Your task to perform on an android device: add a label to a message in the gmail app Image 0: 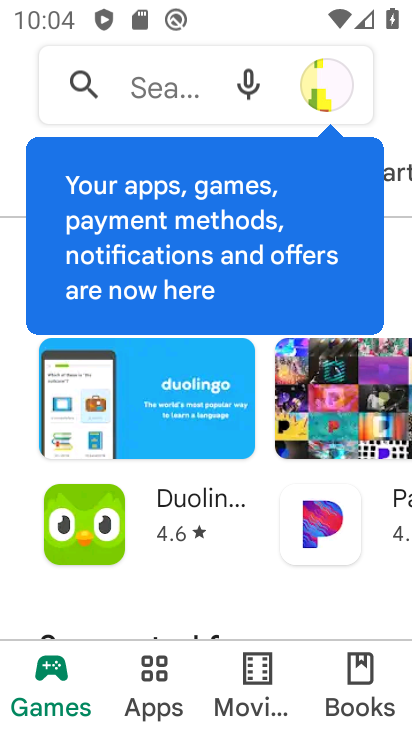
Step 0: press home button
Your task to perform on an android device: add a label to a message in the gmail app Image 1: 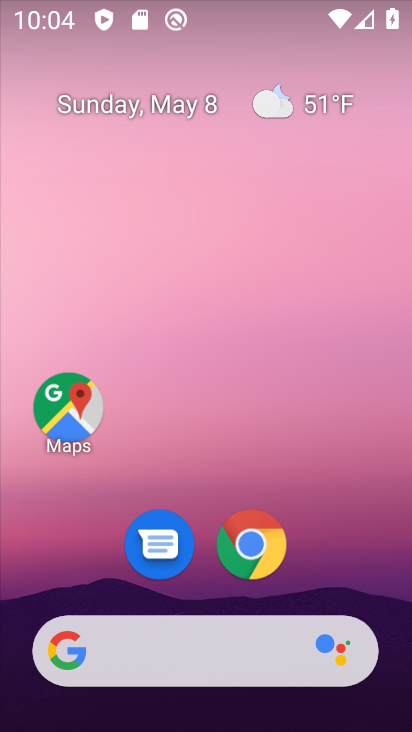
Step 1: drag from (362, 370) to (360, 27)
Your task to perform on an android device: add a label to a message in the gmail app Image 2: 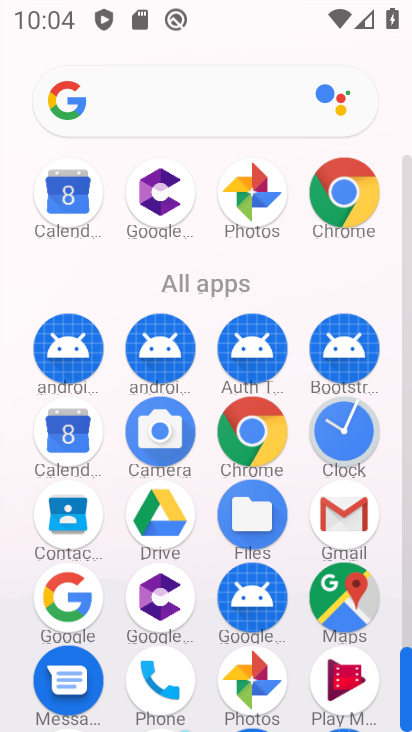
Step 2: click (364, 515)
Your task to perform on an android device: add a label to a message in the gmail app Image 3: 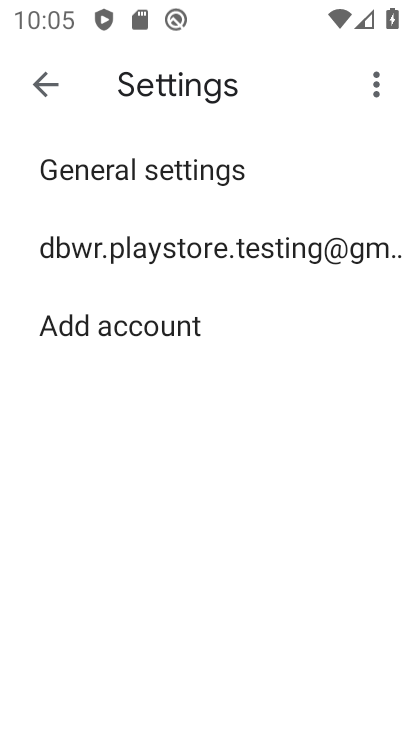
Step 3: click (55, 86)
Your task to perform on an android device: add a label to a message in the gmail app Image 4: 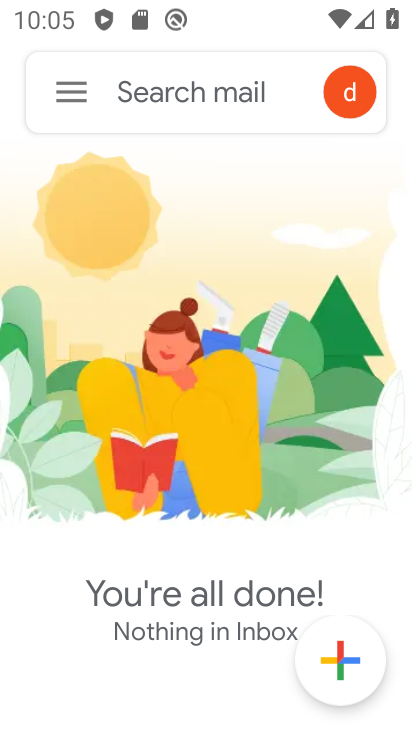
Step 4: task complete